Your task to perform on an android device: see tabs open on other devices in the chrome app Image 0: 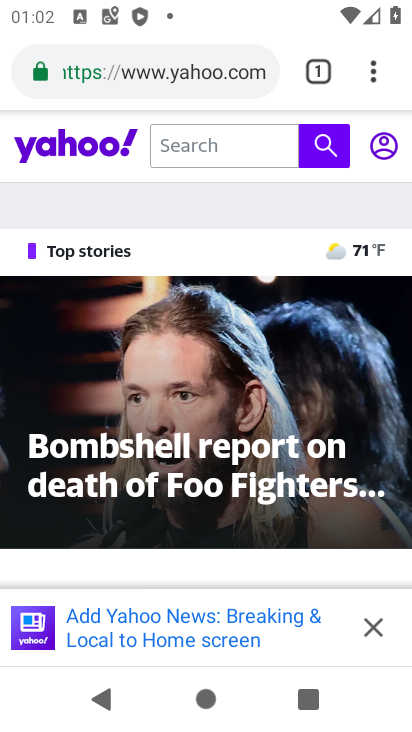
Step 0: click (375, 75)
Your task to perform on an android device: see tabs open on other devices in the chrome app Image 1: 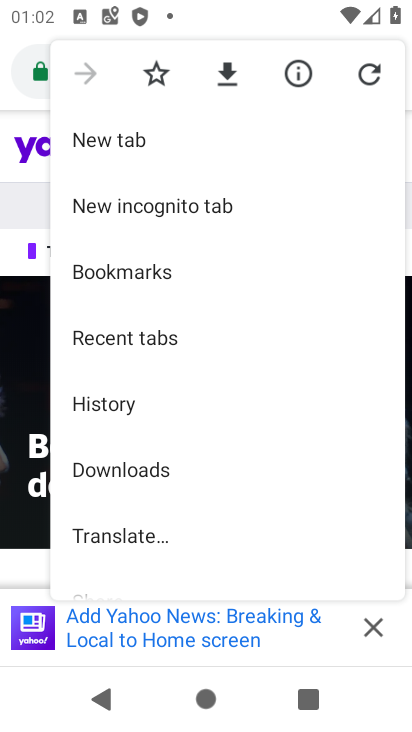
Step 1: click (103, 338)
Your task to perform on an android device: see tabs open on other devices in the chrome app Image 2: 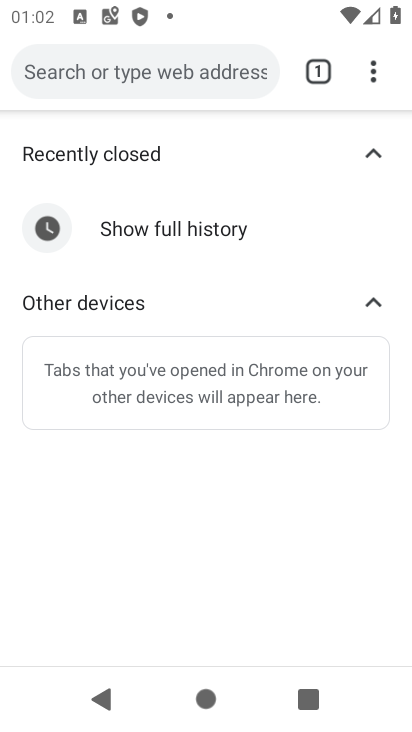
Step 2: task complete